Your task to perform on an android device: change your default location settings in chrome Image 0: 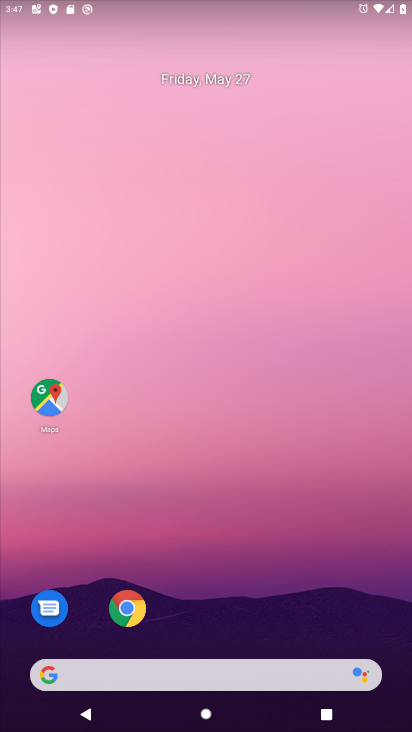
Step 0: click (126, 612)
Your task to perform on an android device: change your default location settings in chrome Image 1: 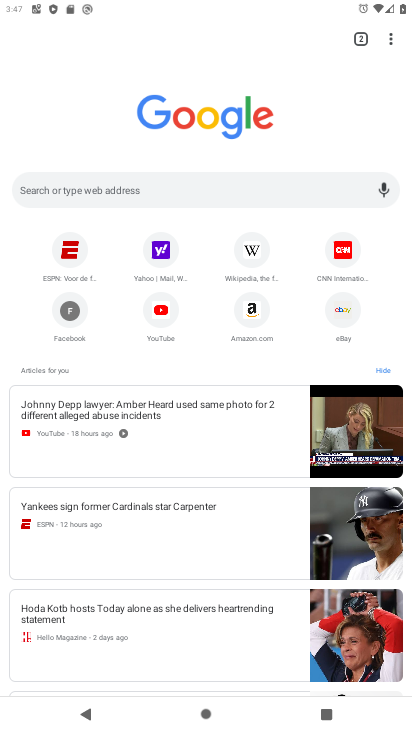
Step 1: click (389, 46)
Your task to perform on an android device: change your default location settings in chrome Image 2: 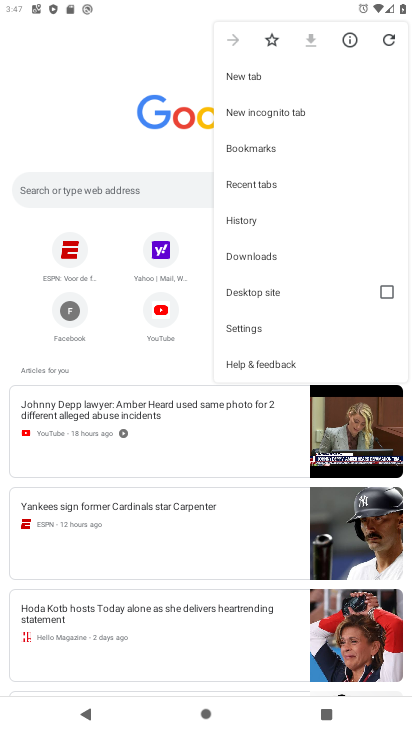
Step 2: click (259, 323)
Your task to perform on an android device: change your default location settings in chrome Image 3: 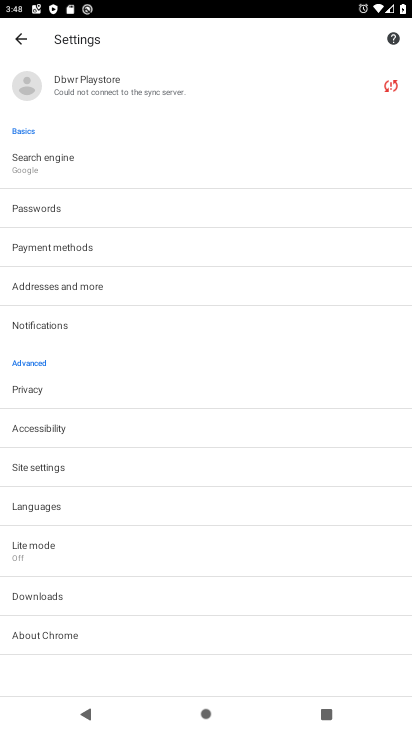
Step 3: click (40, 467)
Your task to perform on an android device: change your default location settings in chrome Image 4: 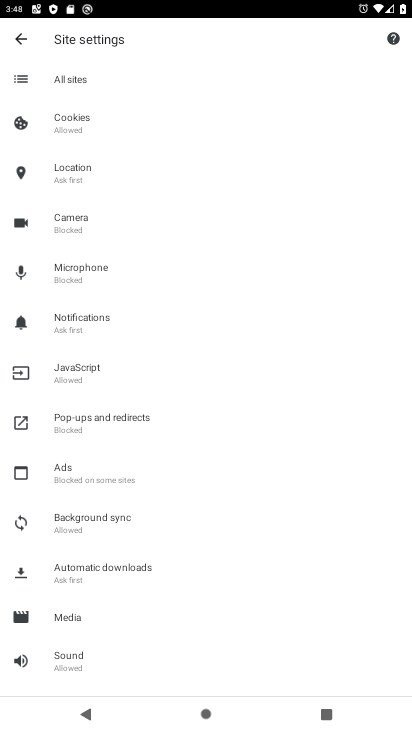
Step 4: click (62, 170)
Your task to perform on an android device: change your default location settings in chrome Image 5: 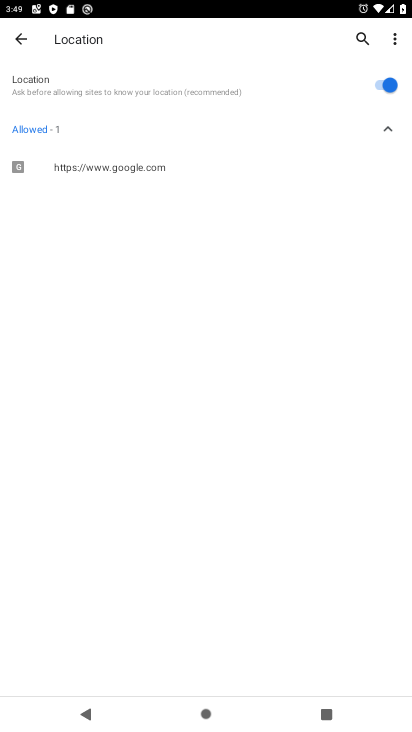
Step 5: task complete